Your task to perform on an android device: turn on javascript in the chrome app Image 0: 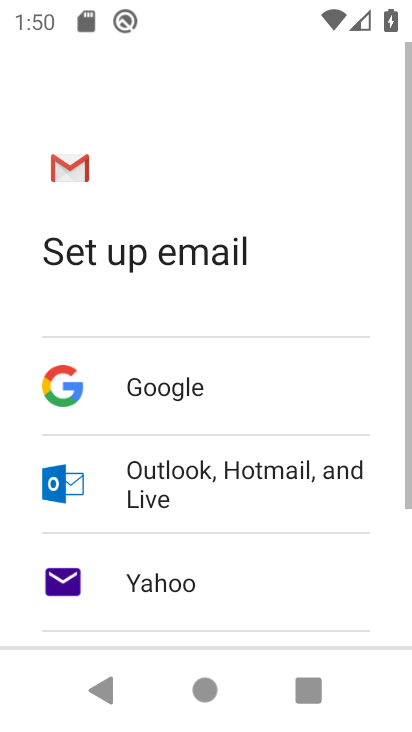
Step 0: press home button
Your task to perform on an android device: turn on javascript in the chrome app Image 1: 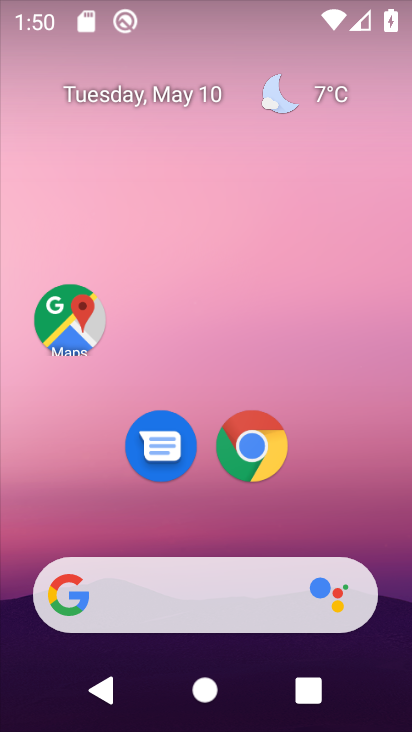
Step 1: click (276, 458)
Your task to perform on an android device: turn on javascript in the chrome app Image 2: 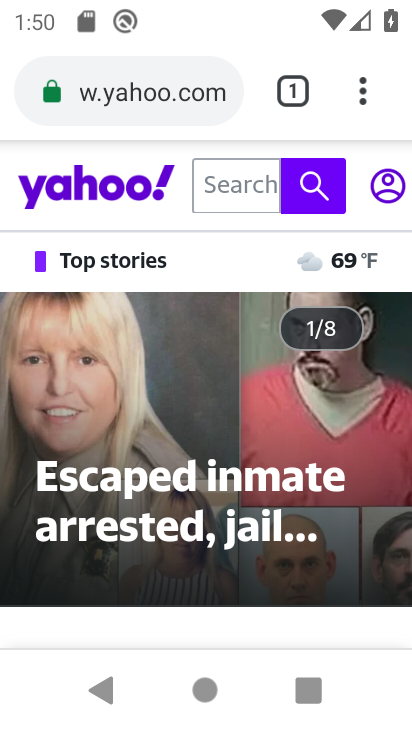
Step 2: drag from (365, 96) to (213, 480)
Your task to perform on an android device: turn on javascript in the chrome app Image 3: 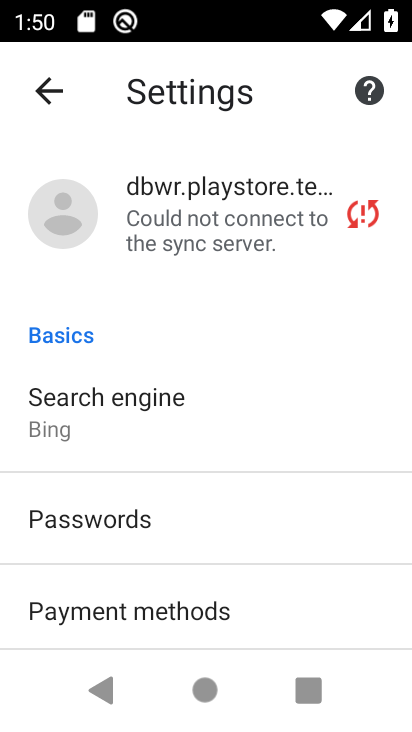
Step 3: drag from (221, 536) to (251, 236)
Your task to perform on an android device: turn on javascript in the chrome app Image 4: 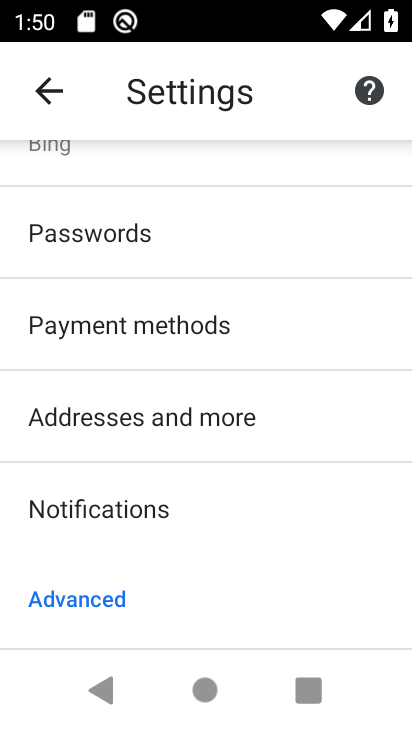
Step 4: drag from (203, 620) to (229, 321)
Your task to perform on an android device: turn on javascript in the chrome app Image 5: 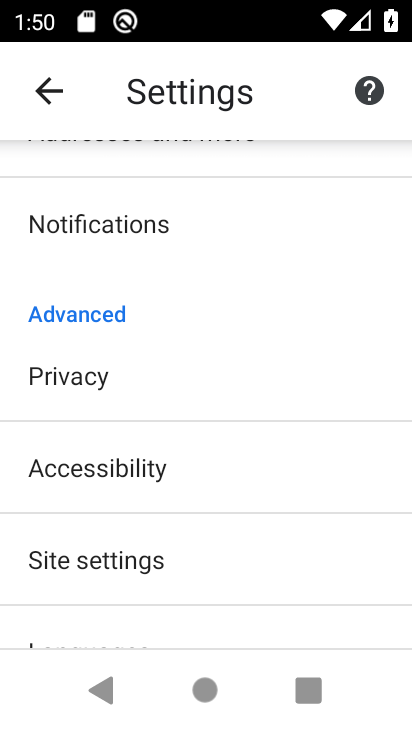
Step 5: click (141, 548)
Your task to perform on an android device: turn on javascript in the chrome app Image 6: 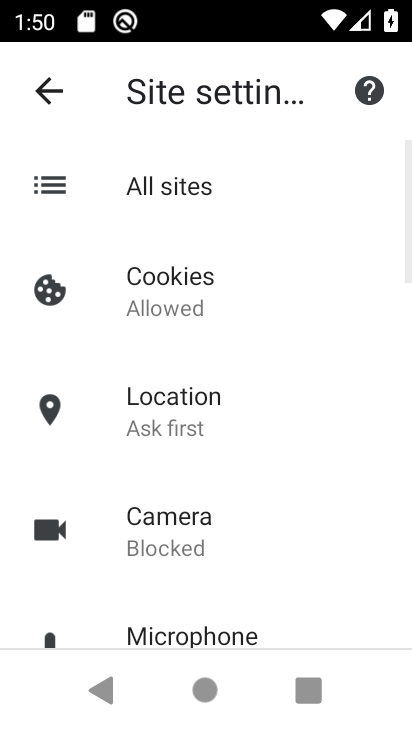
Step 6: drag from (219, 594) to (238, 235)
Your task to perform on an android device: turn on javascript in the chrome app Image 7: 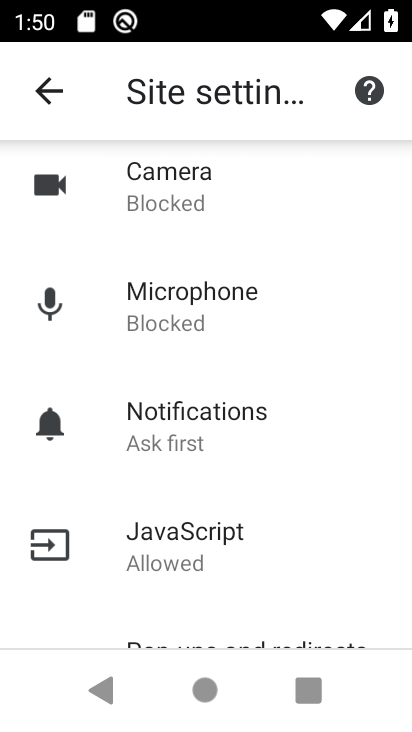
Step 7: click (211, 528)
Your task to perform on an android device: turn on javascript in the chrome app Image 8: 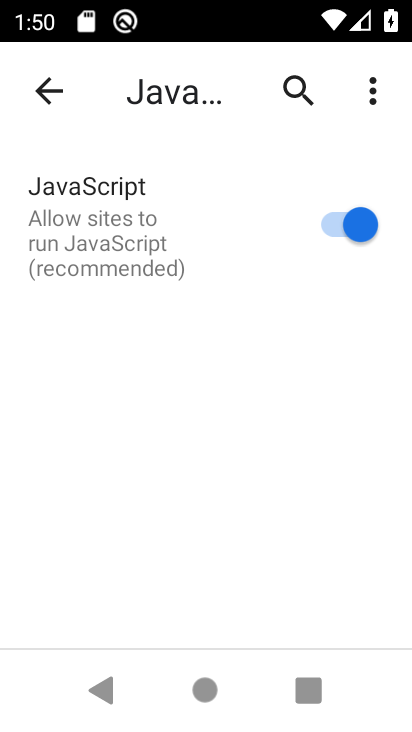
Step 8: task complete